Your task to perform on an android device: Check the news Image 0: 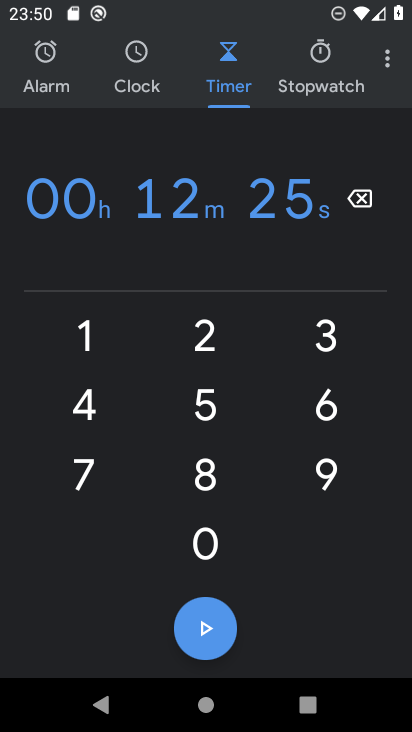
Step 0: press home button
Your task to perform on an android device: Check the news Image 1: 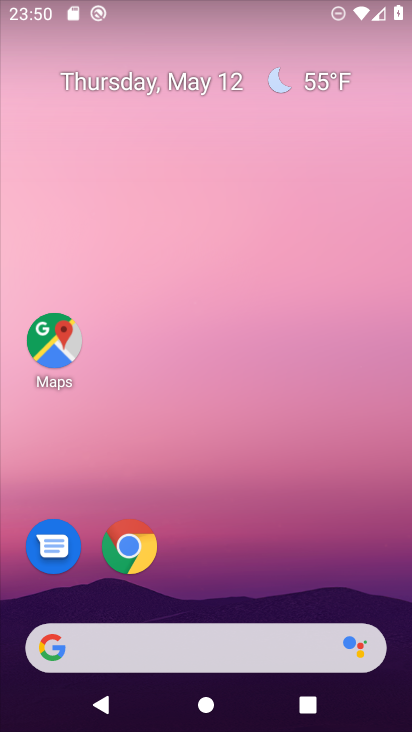
Step 1: click (128, 543)
Your task to perform on an android device: Check the news Image 2: 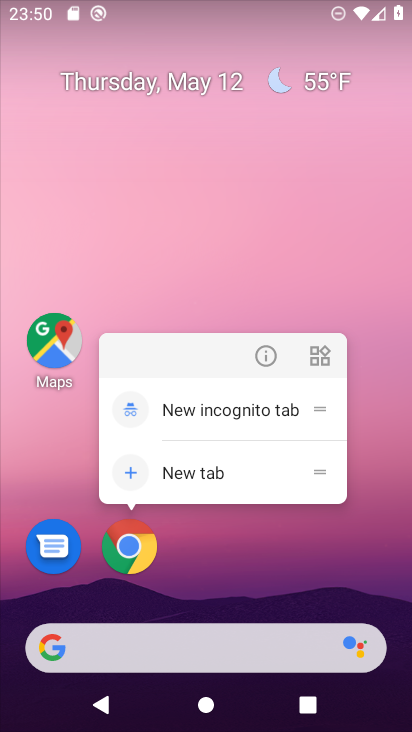
Step 2: click (258, 360)
Your task to perform on an android device: Check the news Image 3: 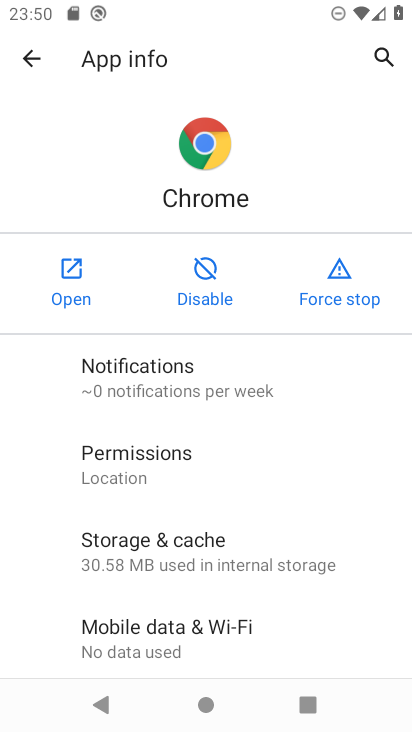
Step 3: click (89, 275)
Your task to perform on an android device: Check the news Image 4: 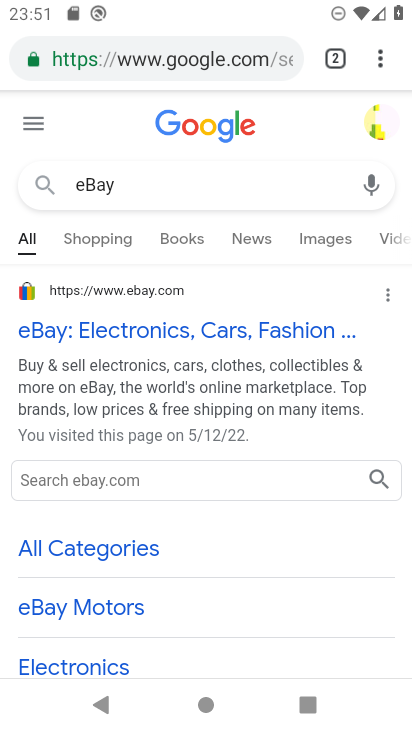
Step 4: type "news"
Your task to perform on an android device: Check the news Image 5: 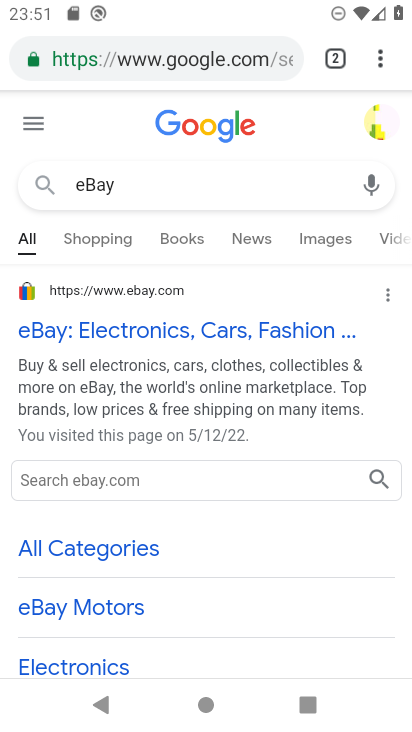
Step 5: click (166, 62)
Your task to perform on an android device: Check the news Image 6: 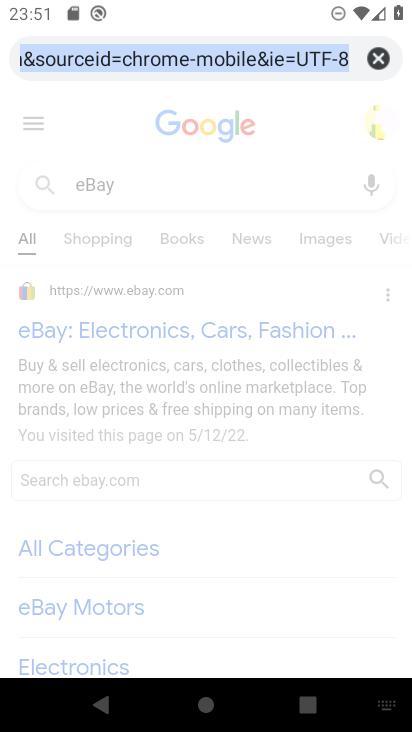
Step 6: type "news"
Your task to perform on an android device: Check the news Image 7: 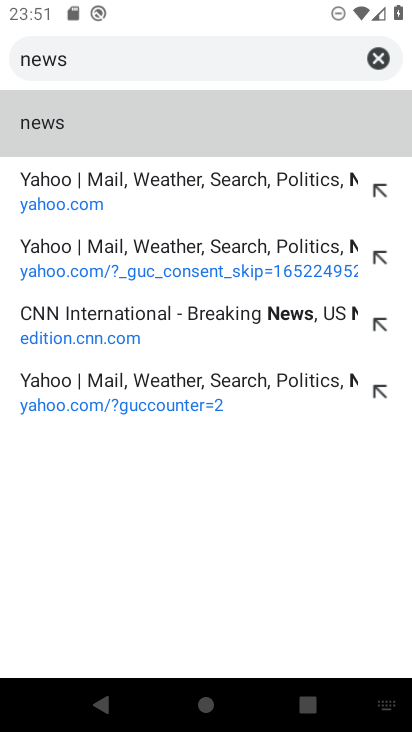
Step 7: click (252, 123)
Your task to perform on an android device: Check the news Image 8: 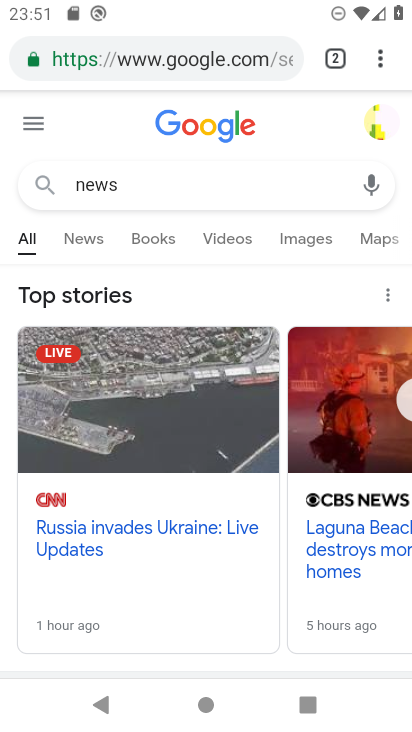
Step 8: task complete